Your task to perform on an android device: What's on my calendar today? Image 0: 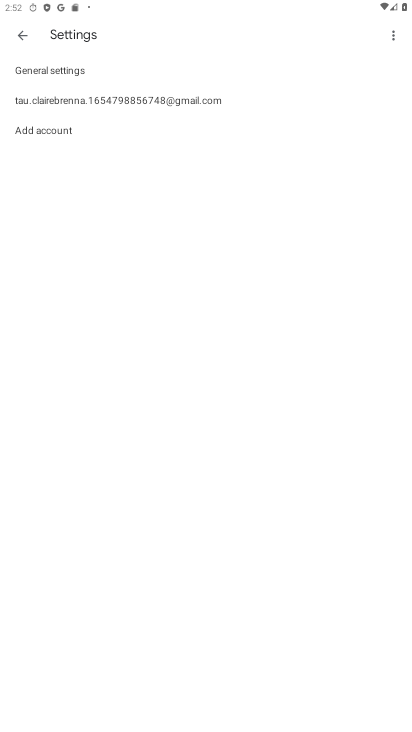
Step 0: press home button
Your task to perform on an android device: What's on my calendar today? Image 1: 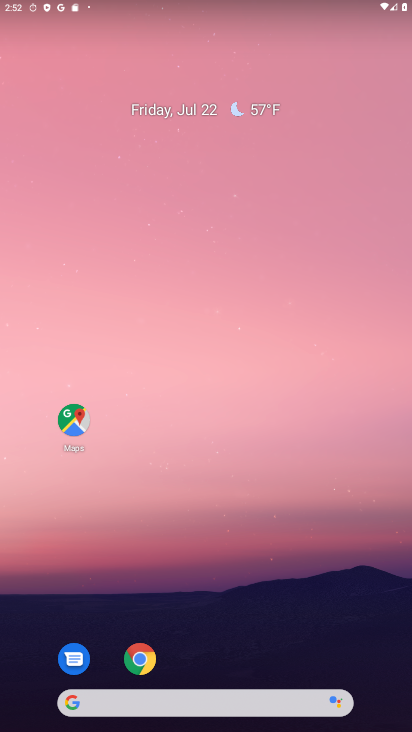
Step 1: drag from (258, 605) to (255, 139)
Your task to perform on an android device: What's on my calendar today? Image 2: 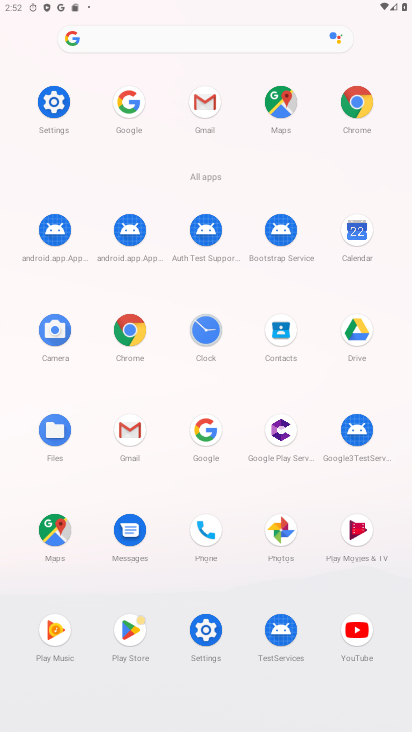
Step 2: click (354, 227)
Your task to perform on an android device: What's on my calendar today? Image 3: 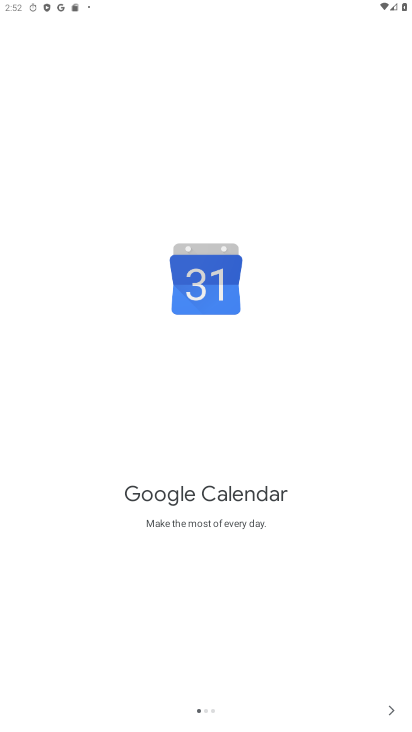
Step 3: click (388, 704)
Your task to perform on an android device: What's on my calendar today? Image 4: 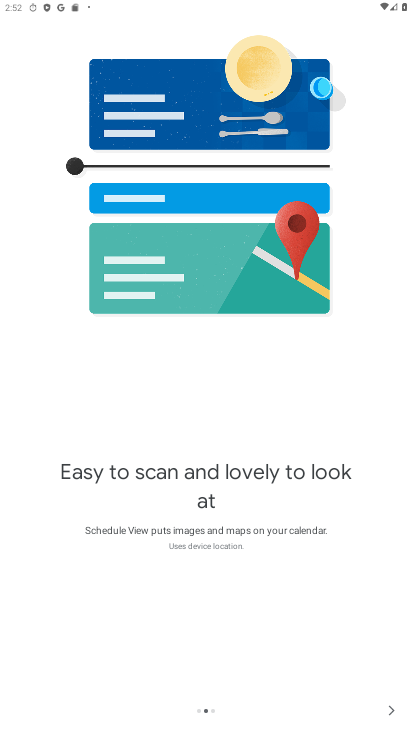
Step 4: click (388, 704)
Your task to perform on an android device: What's on my calendar today? Image 5: 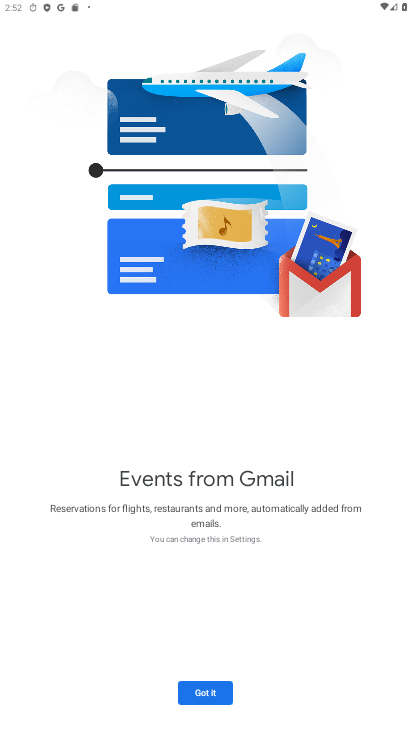
Step 5: click (200, 698)
Your task to perform on an android device: What's on my calendar today? Image 6: 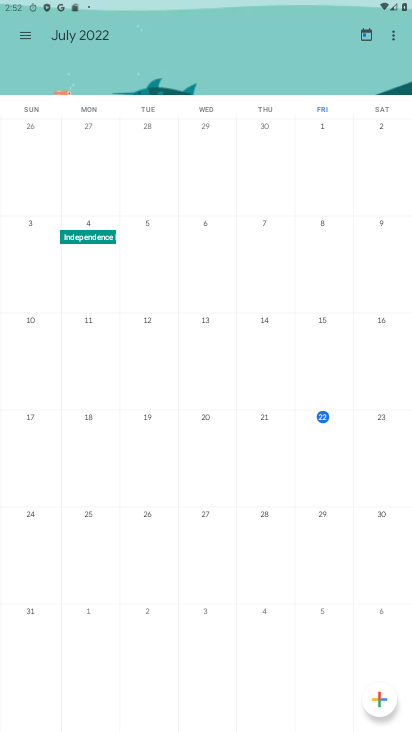
Step 6: click (325, 433)
Your task to perform on an android device: What's on my calendar today? Image 7: 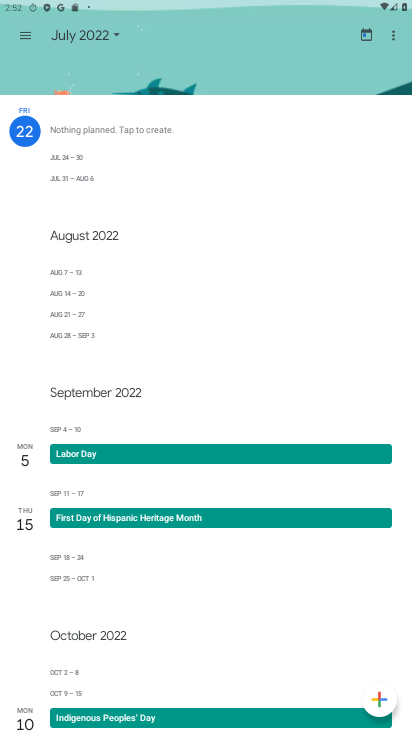
Step 7: task complete